Your task to perform on an android device: turn on location history Image 0: 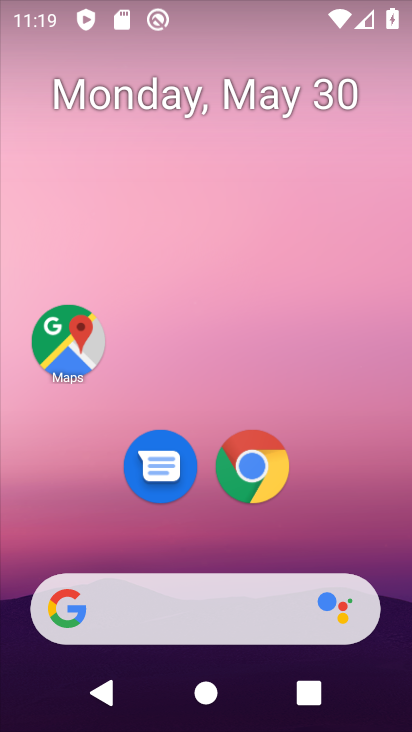
Step 0: drag from (207, 613) to (148, 44)
Your task to perform on an android device: turn on location history Image 1: 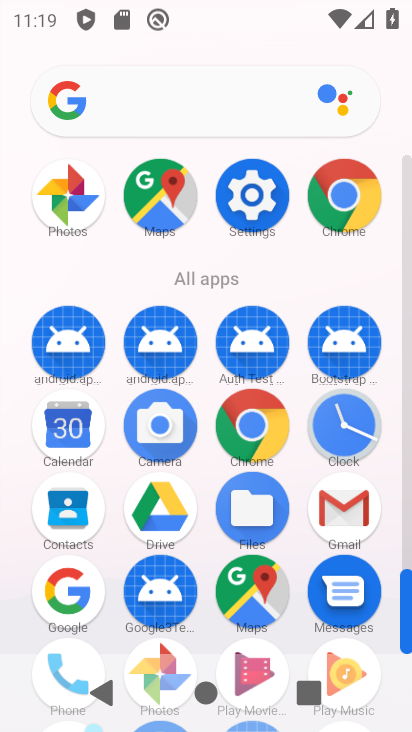
Step 1: click (256, 222)
Your task to perform on an android device: turn on location history Image 2: 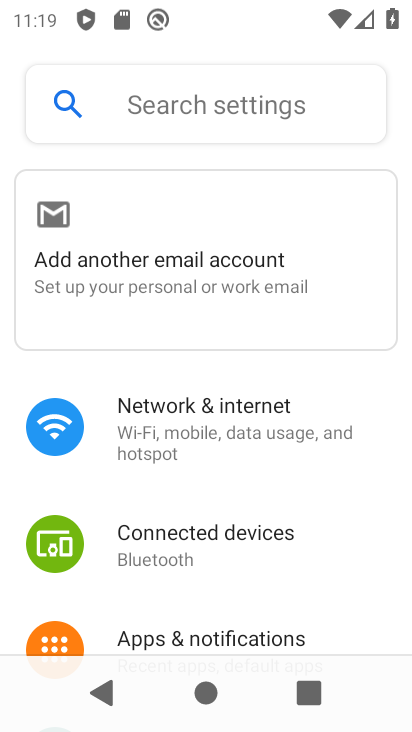
Step 2: drag from (205, 559) to (117, 57)
Your task to perform on an android device: turn on location history Image 3: 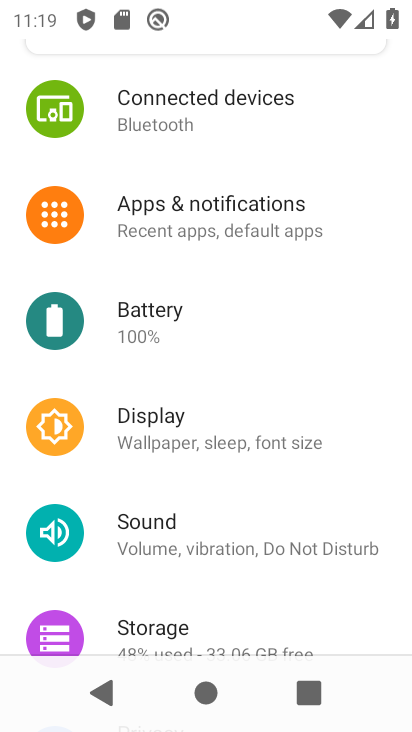
Step 3: drag from (186, 513) to (155, 0)
Your task to perform on an android device: turn on location history Image 4: 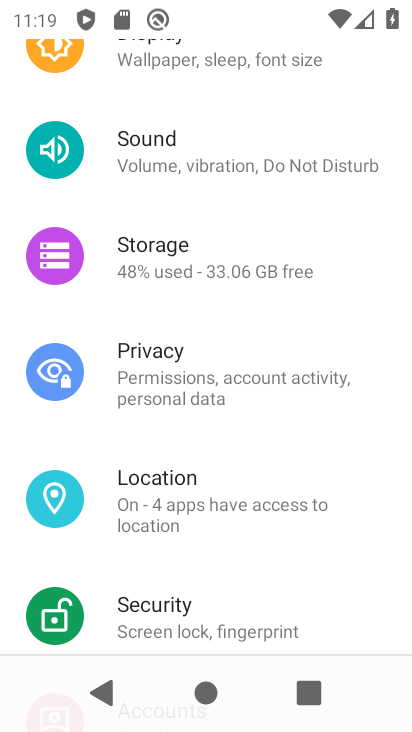
Step 4: click (146, 505)
Your task to perform on an android device: turn on location history Image 5: 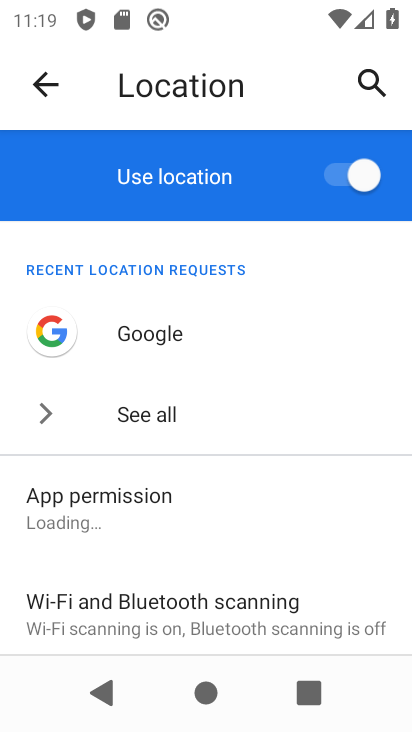
Step 5: drag from (204, 536) to (159, 75)
Your task to perform on an android device: turn on location history Image 6: 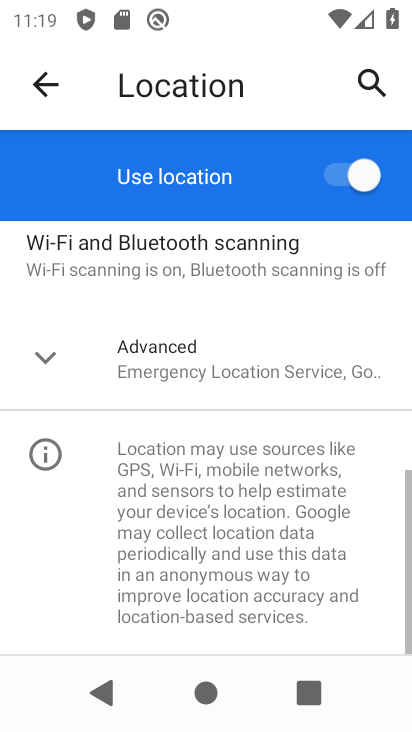
Step 6: click (215, 381)
Your task to perform on an android device: turn on location history Image 7: 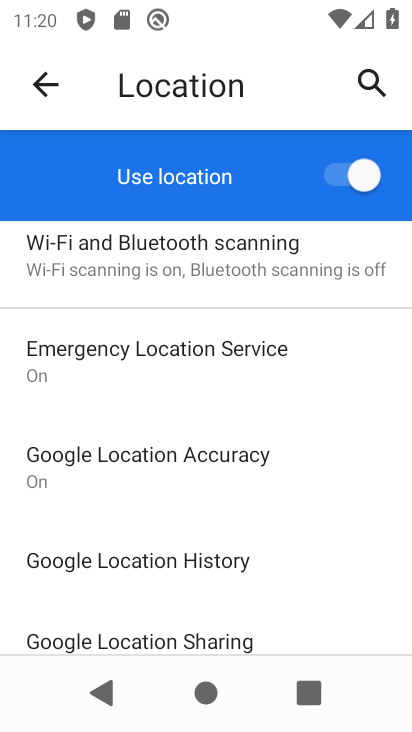
Step 7: click (187, 559)
Your task to perform on an android device: turn on location history Image 8: 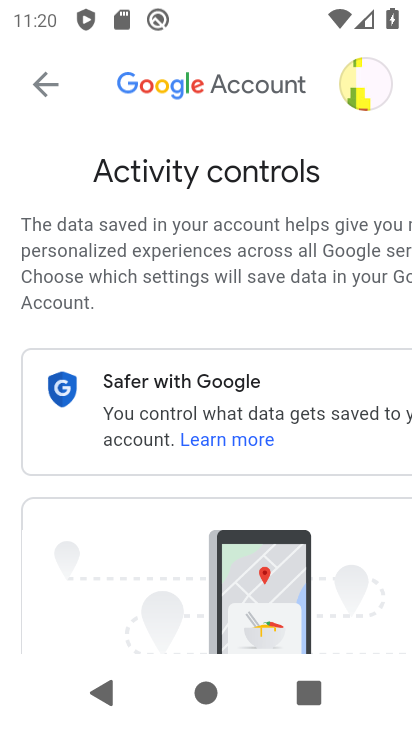
Step 8: task complete